Your task to perform on an android device: Go to privacy settings Image 0: 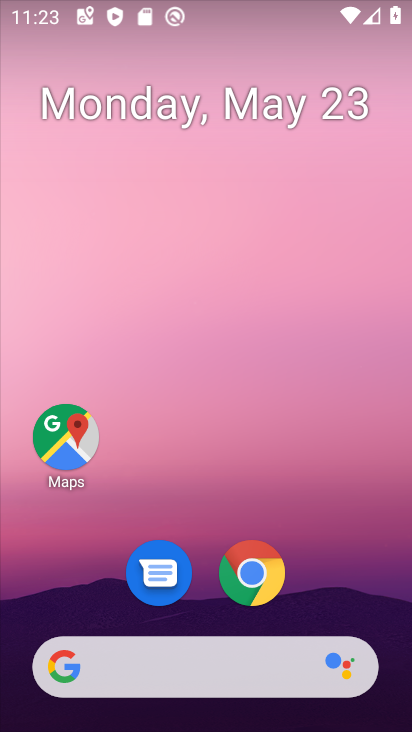
Step 0: drag from (272, 721) to (232, 295)
Your task to perform on an android device: Go to privacy settings Image 1: 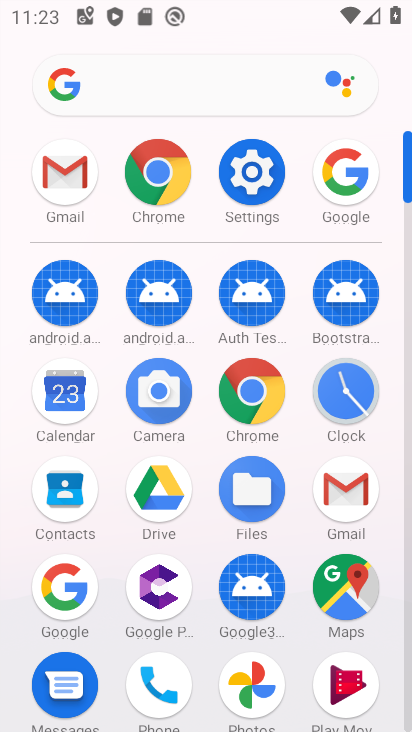
Step 1: click (244, 197)
Your task to perform on an android device: Go to privacy settings Image 2: 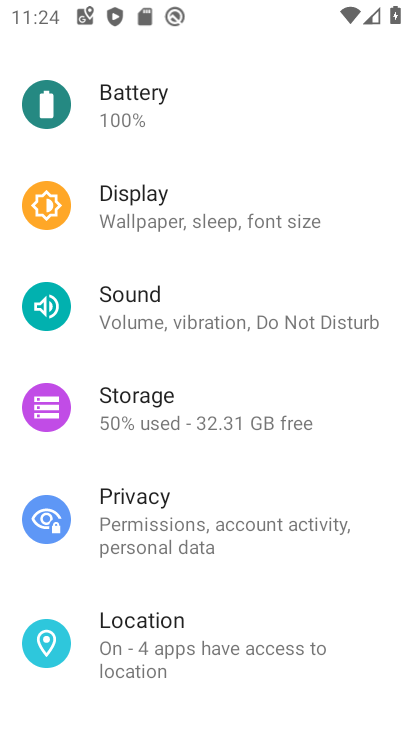
Step 2: drag from (252, 398) to (213, 105)
Your task to perform on an android device: Go to privacy settings Image 3: 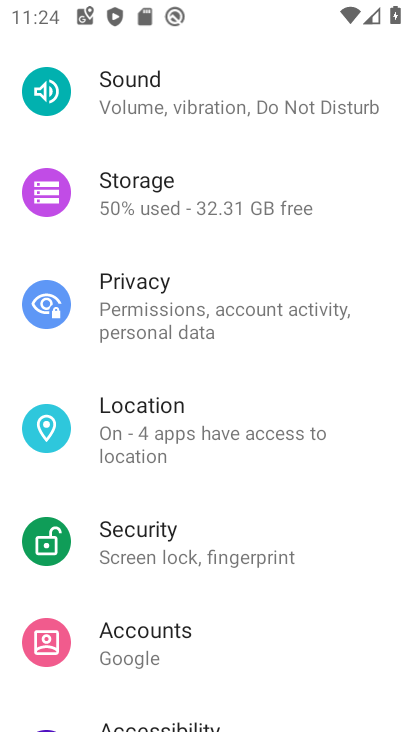
Step 3: click (259, 314)
Your task to perform on an android device: Go to privacy settings Image 4: 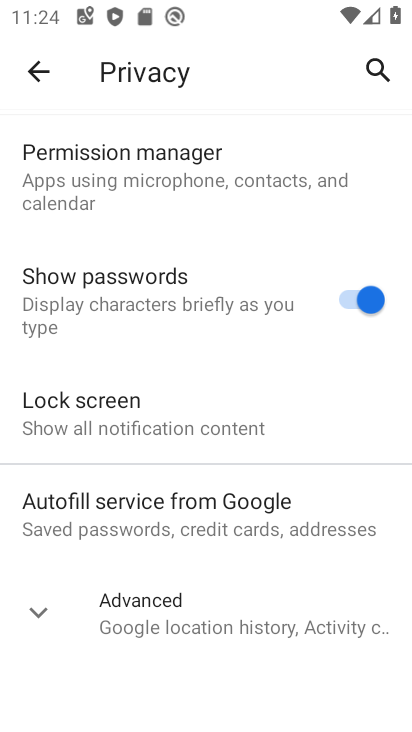
Step 4: task complete